Your task to perform on an android device: turn off smart reply in the gmail app Image 0: 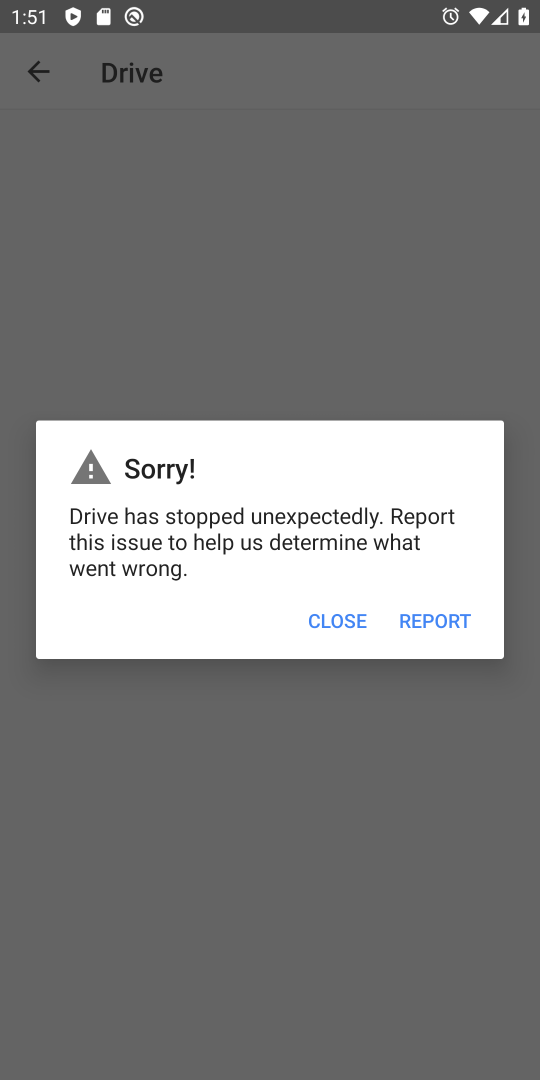
Step 0: press home button
Your task to perform on an android device: turn off smart reply in the gmail app Image 1: 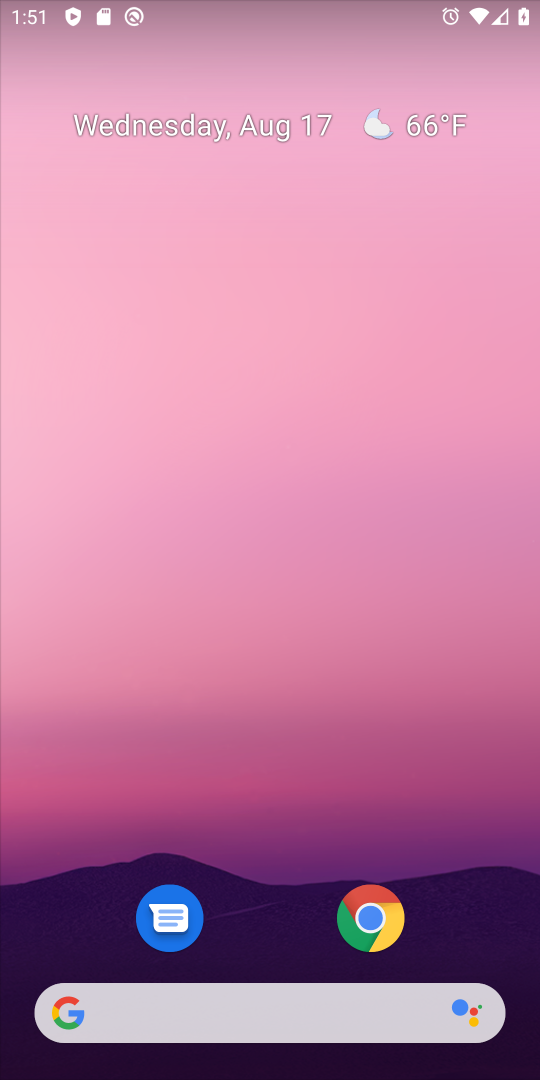
Step 1: drag from (347, 1042) to (277, 19)
Your task to perform on an android device: turn off smart reply in the gmail app Image 2: 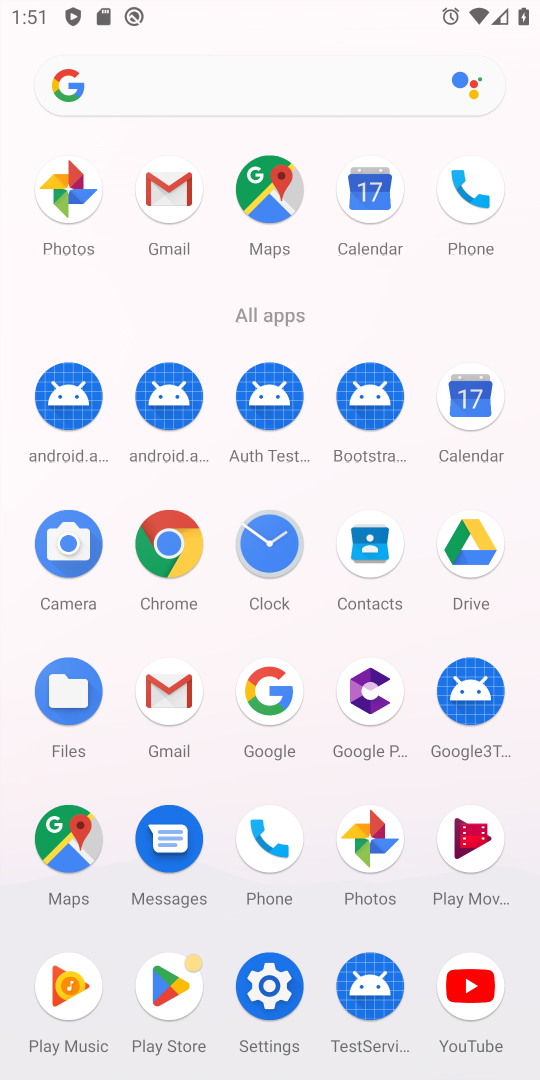
Step 2: click (156, 686)
Your task to perform on an android device: turn off smart reply in the gmail app Image 3: 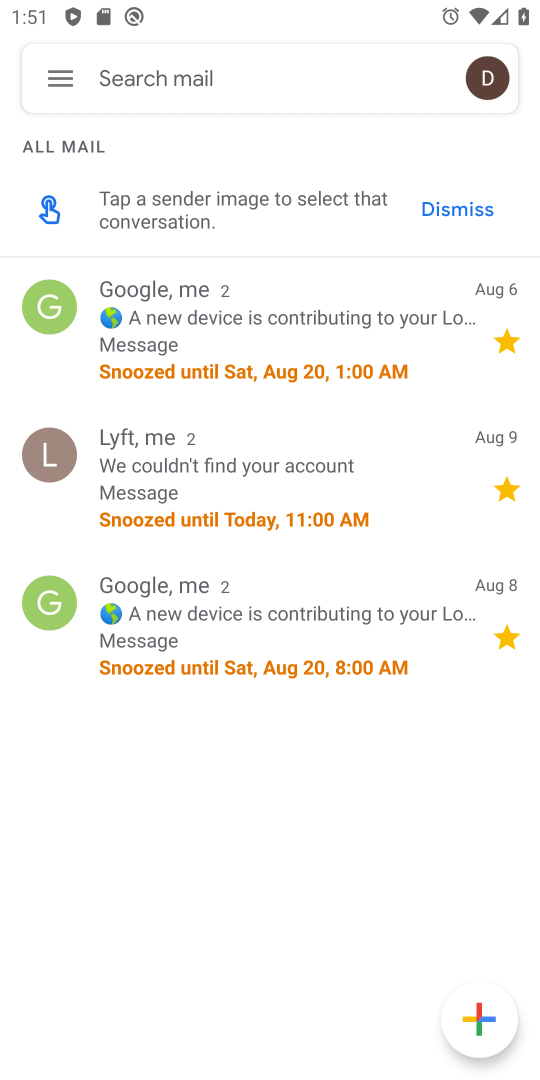
Step 3: click (64, 63)
Your task to perform on an android device: turn off smart reply in the gmail app Image 4: 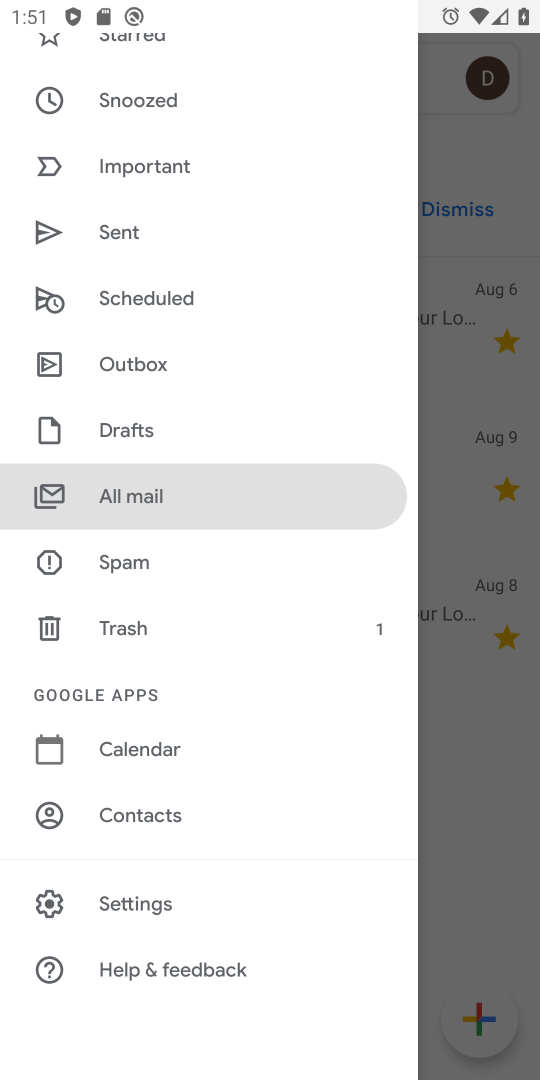
Step 4: click (134, 912)
Your task to perform on an android device: turn off smart reply in the gmail app Image 5: 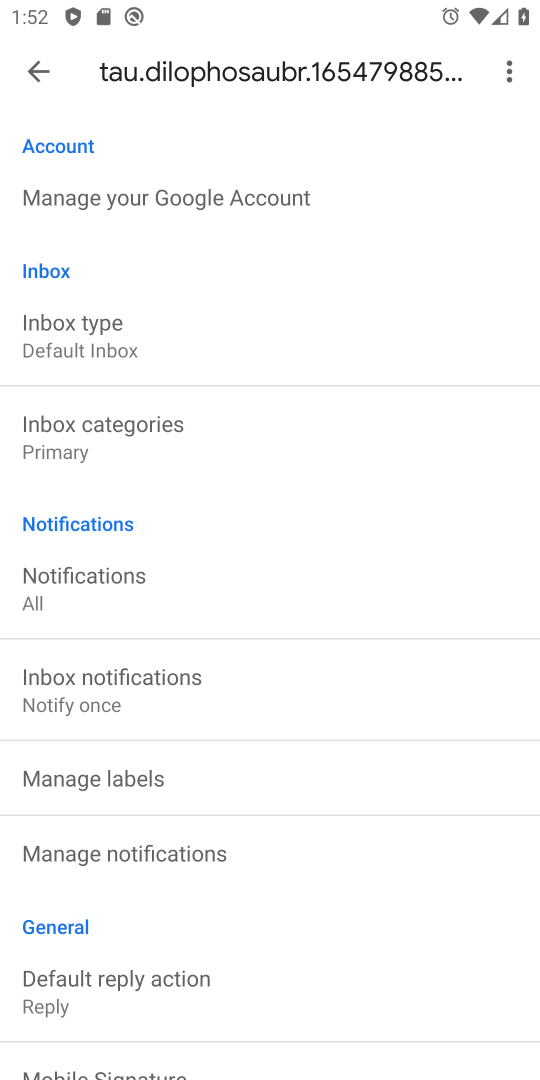
Step 5: drag from (171, 882) to (182, 32)
Your task to perform on an android device: turn off smart reply in the gmail app Image 6: 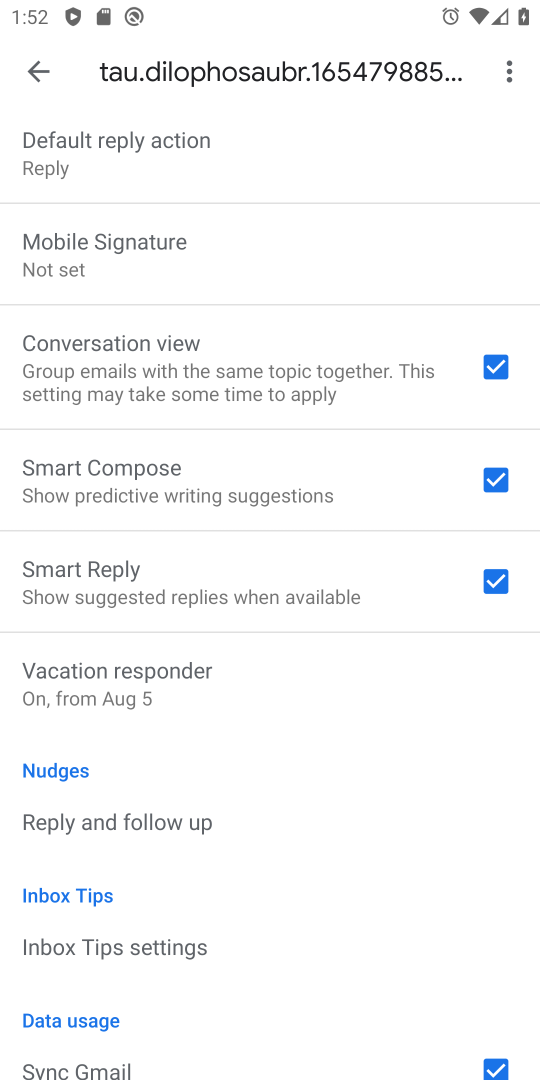
Step 6: click (488, 590)
Your task to perform on an android device: turn off smart reply in the gmail app Image 7: 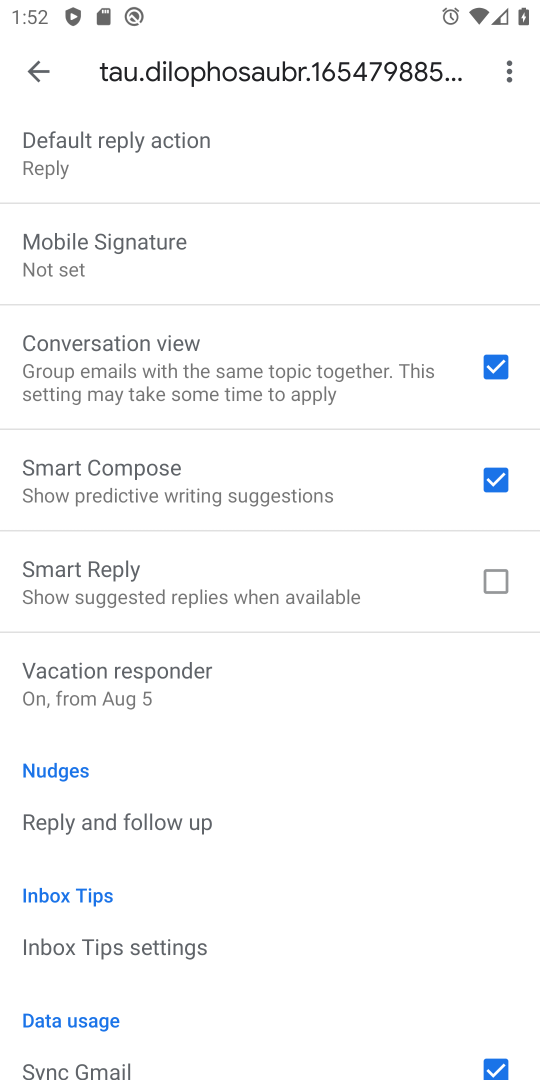
Step 7: task complete